Your task to perform on an android device: turn off picture-in-picture Image 0: 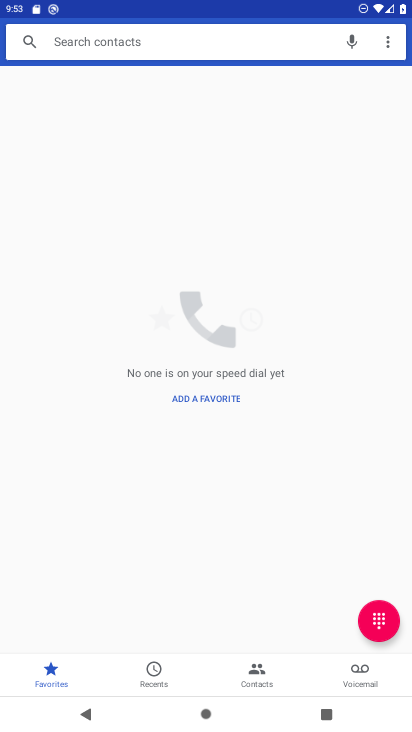
Step 0: press home button
Your task to perform on an android device: turn off picture-in-picture Image 1: 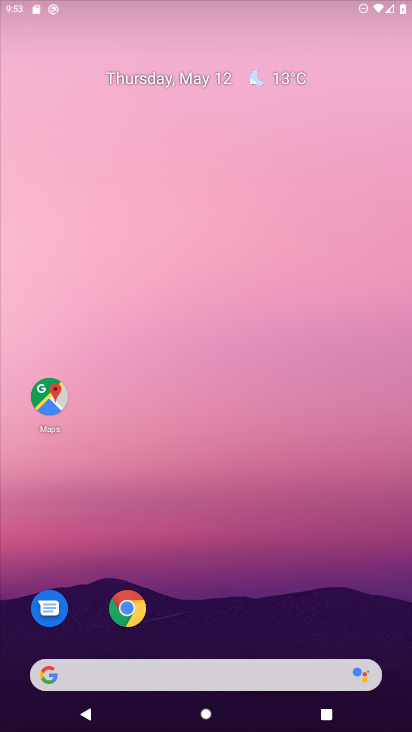
Step 1: drag from (233, 638) to (274, 186)
Your task to perform on an android device: turn off picture-in-picture Image 2: 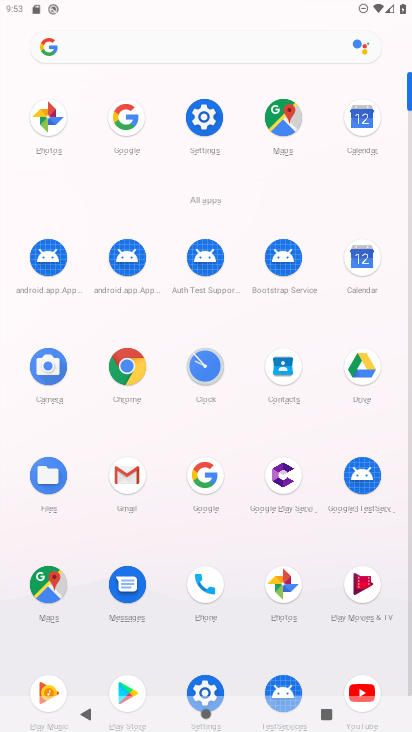
Step 2: click (127, 367)
Your task to perform on an android device: turn off picture-in-picture Image 3: 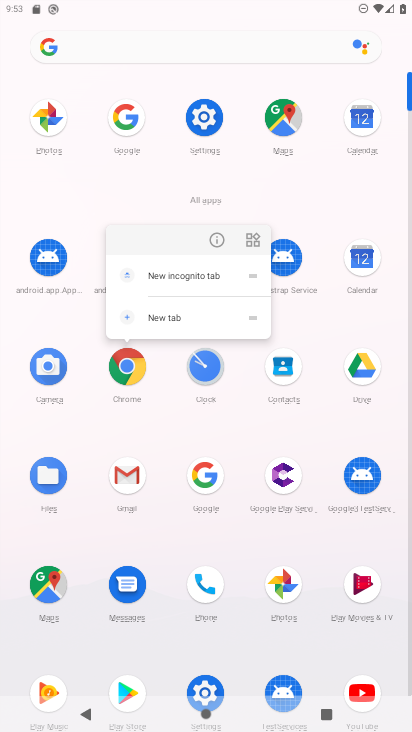
Step 3: click (218, 236)
Your task to perform on an android device: turn off picture-in-picture Image 4: 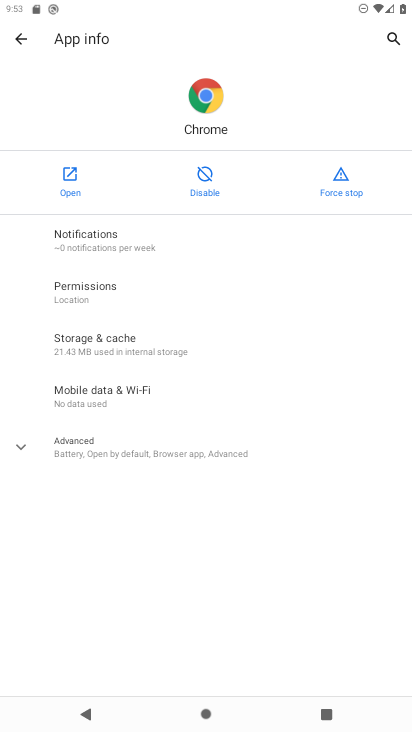
Step 4: click (162, 449)
Your task to perform on an android device: turn off picture-in-picture Image 5: 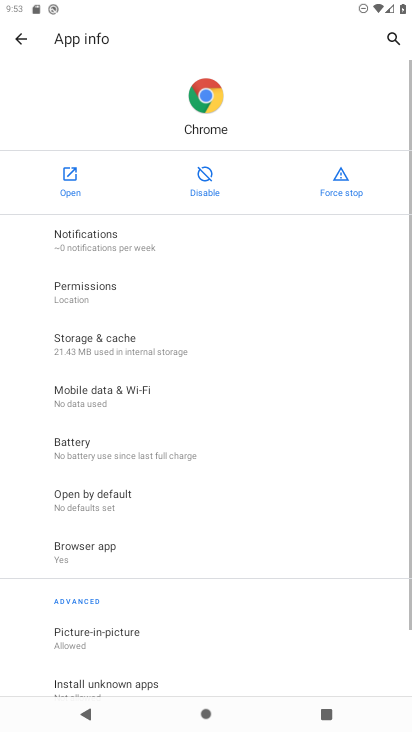
Step 5: click (251, 658)
Your task to perform on an android device: turn off picture-in-picture Image 6: 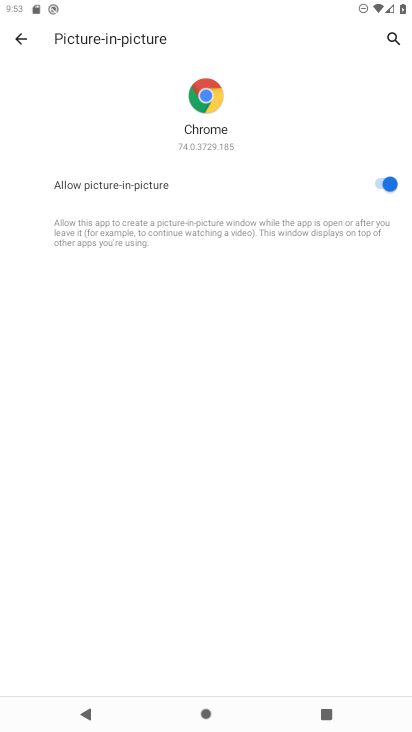
Step 6: click (389, 176)
Your task to perform on an android device: turn off picture-in-picture Image 7: 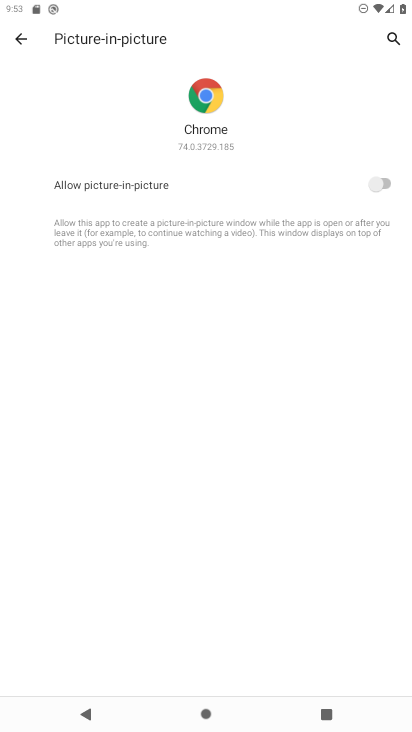
Step 7: task complete